Your task to perform on an android device: Go to calendar. Show me events next week Image 0: 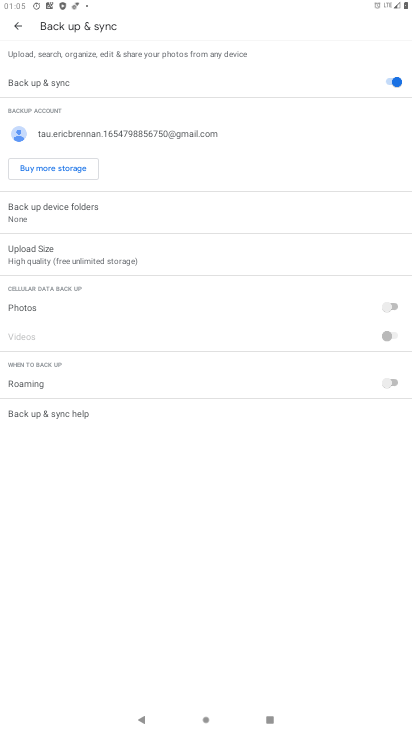
Step 0: press home button
Your task to perform on an android device: Go to calendar. Show me events next week Image 1: 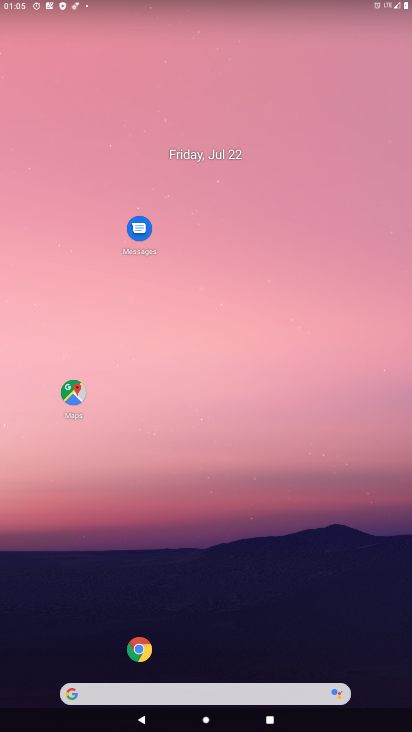
Step 1: drag from (112, 494) to (318, 137)
Your task to perform on an android device: Go to calendar. Show me events next week Image 2: 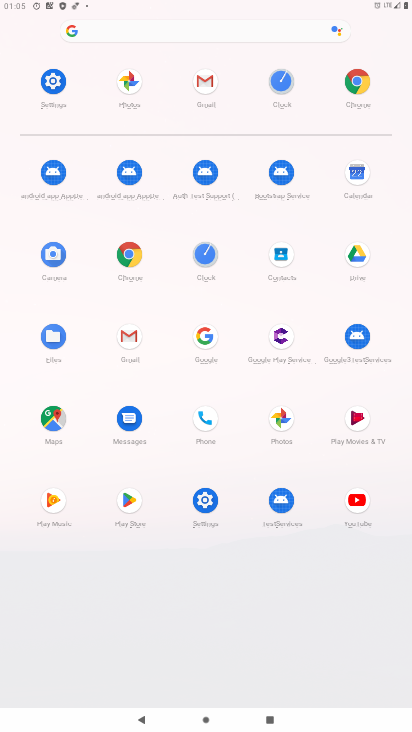
Step 2: click (346, 175)
Your task to perform on an android device: Go to calendar. Show me events next week Image 3: 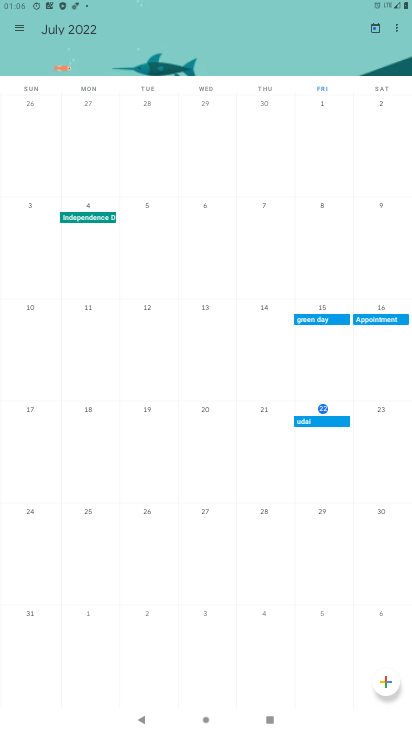
Step 3: click (14, 28)
Your task to perform on an android device: Go to calendar. Show me events next week Image 4: 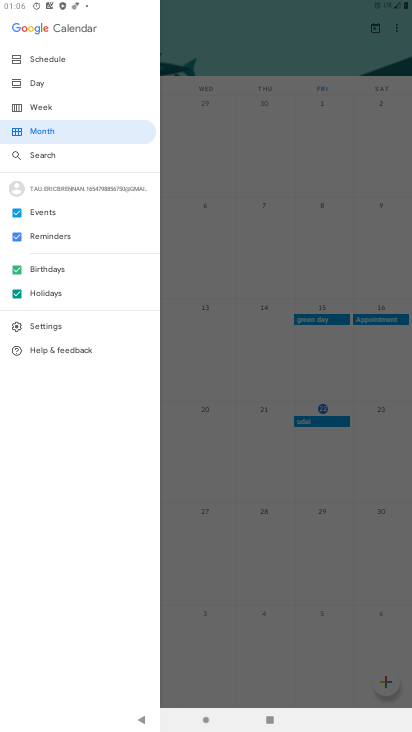
Step 4: click (44, 61)
Your task to perform on an android device: Go to calendar. Show me events next week Image 5: 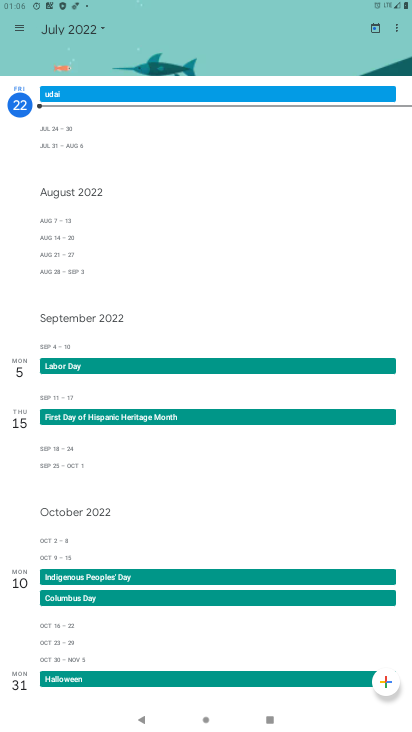
Step 5: task complete